Your task to perform on an android device: Show me the alarms in the clock app Image 0: 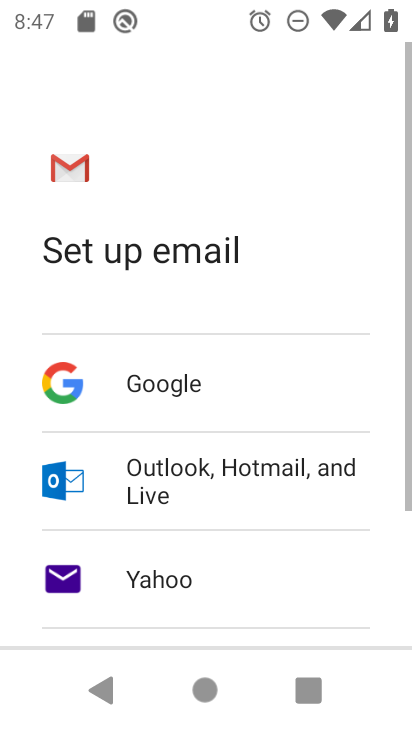
Step 0: press home button
Your task to perform on an android device: Show me the alarms in the clock app Image 1: 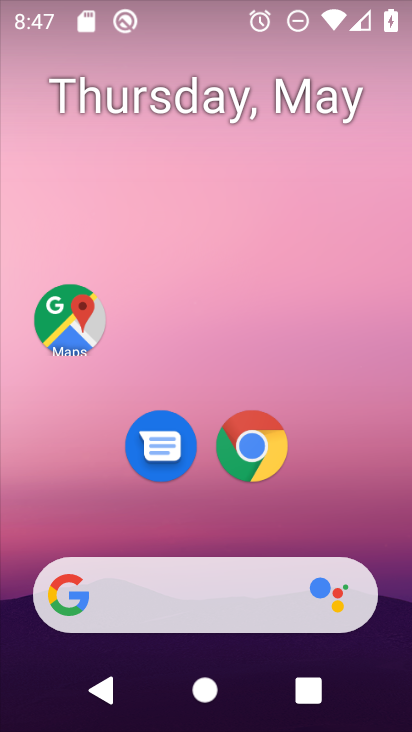
Step 1: drag from (364, 461) to (371, 140)
Your task to perform on an android device: Show me the alarms in the clock app Image 2: 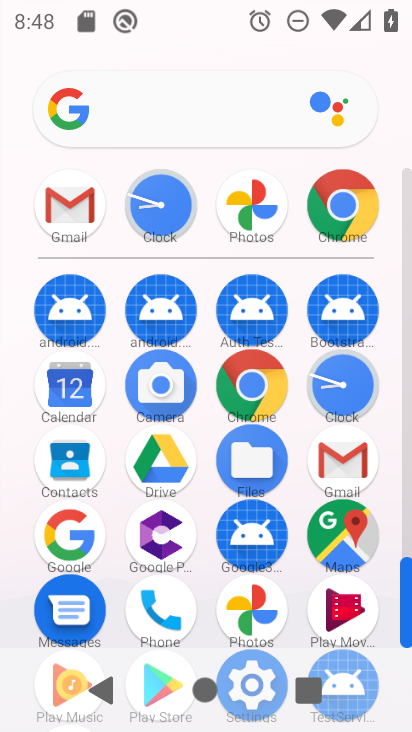
Step 2: click (349, 382)
Your task to perform on an android device: Show me the alarms in the clock app Image 3: 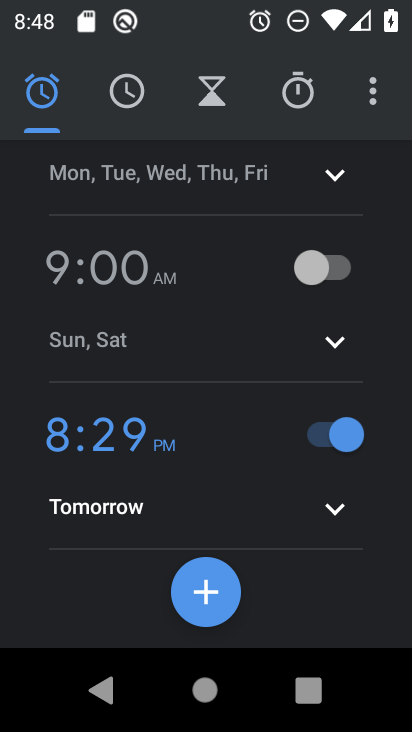
Step 3: task complete